Your task to perform on an android device: turn off airplane mode Image 0: 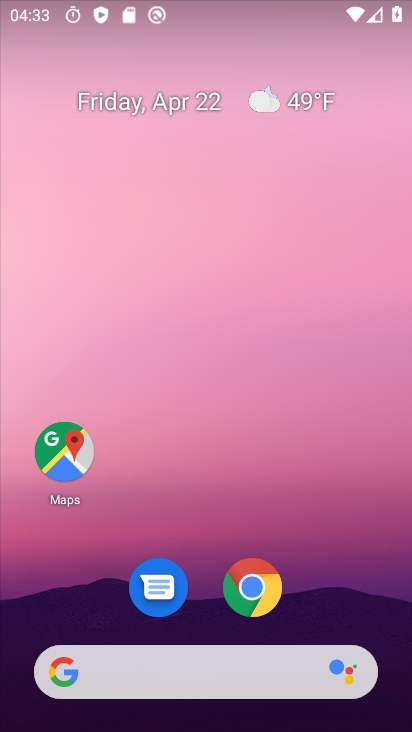
Step 0: drag from (367, 631) to (384, 31)
Your task to perform on an android device: turn off airplane mode Image 1: 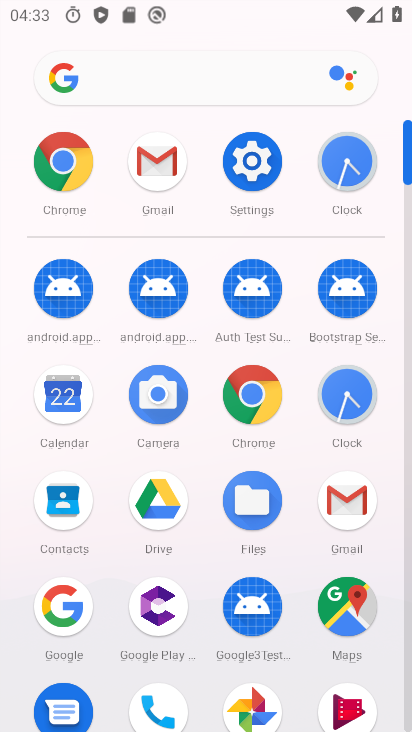
Step 1: click (258, 166)
Your task to perform on an android device: turn off airplane mode Image 2: 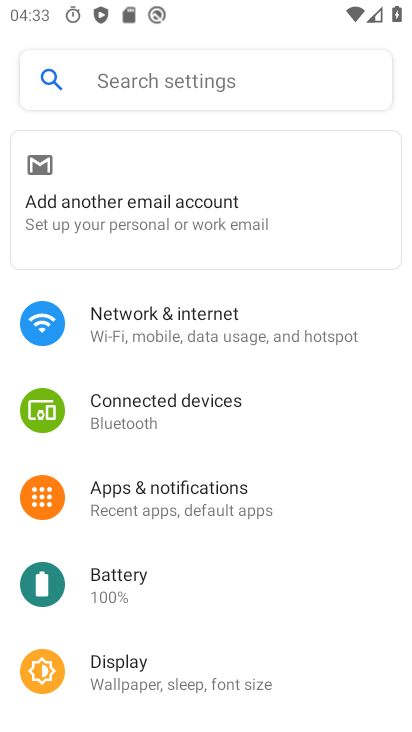
Step 2: click (196, 319)
Your task to perform on an android device: turn off airplane mode Image 3: 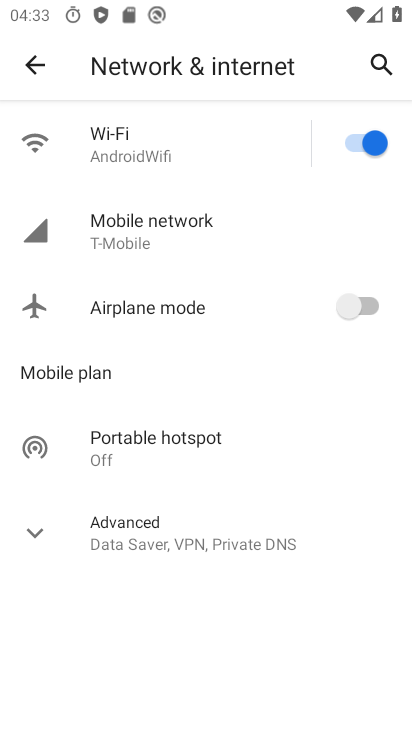
Step 3: task complete